Your task to perform on an android device: open chrome privacy settings Image 0: 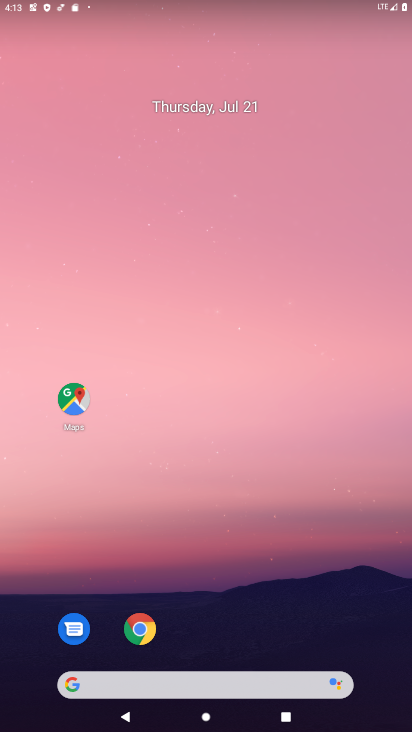
Step 0: click (144, 627)
Your task to perform on an android device: open chrome privacy settings Image 1: 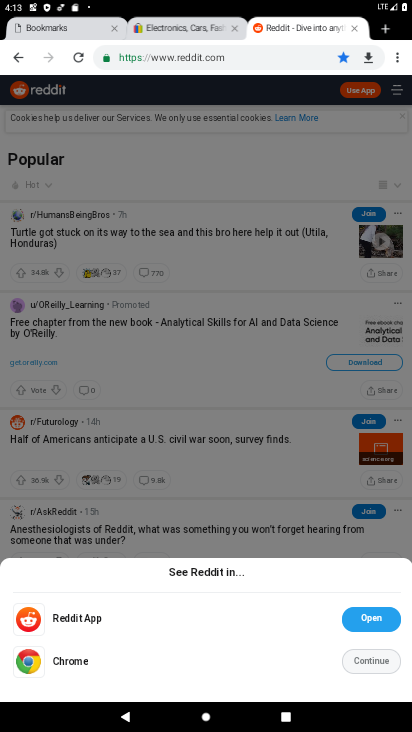
Step 1: click (399, 66)
Your task to perform on an android device: open chrome privacy settings Image 2: 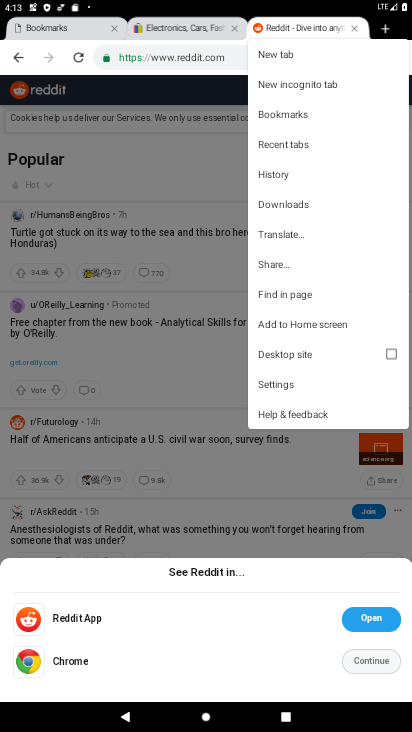
Step 2: click (285, 382)
Your task to perform on an android device: open chrome privacy settings Image 3: 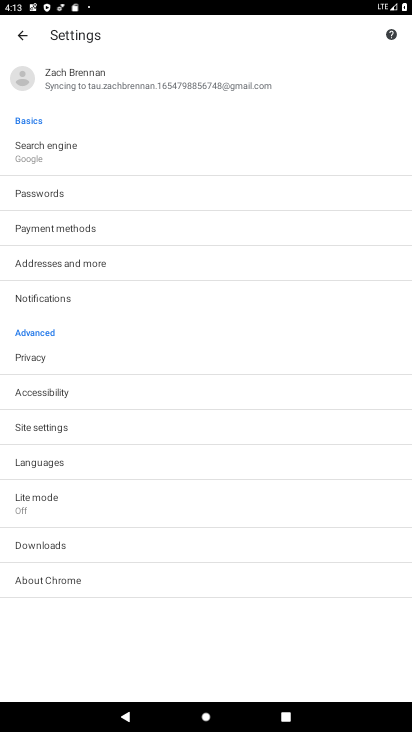
Step 3: click (103, 357)
Your task to perform on an android device: open chrome privacy settings Image 4: 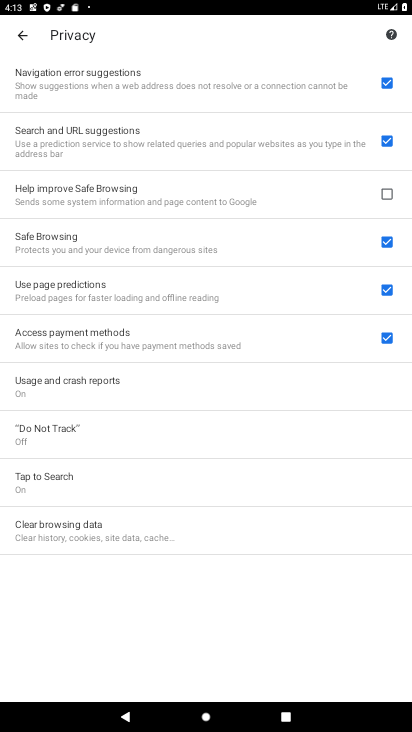
Step 4: task complete